Your task to perform on an android device: Is it going to rain this weekend? Image 0: 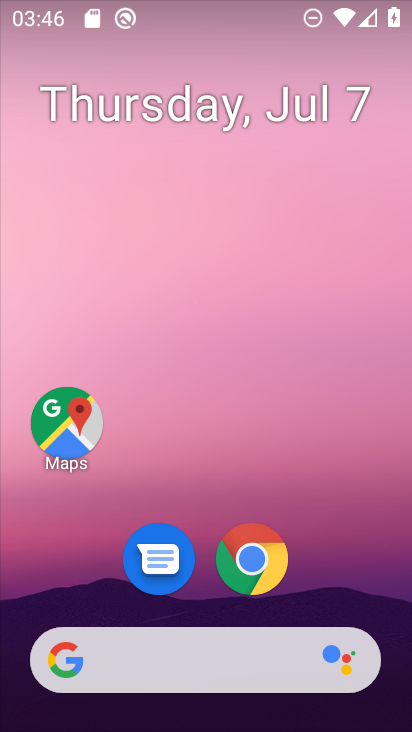
Step 0: click (210, 663)
Your task to perform on an android device: Is it going to rain this weekend? Image 1: 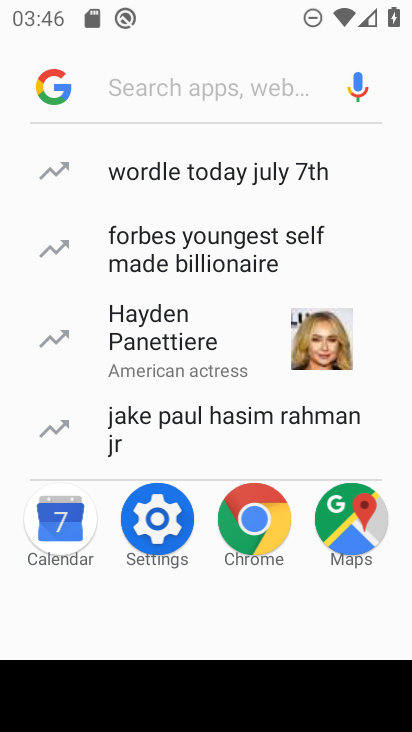
Step 1: type "weather"
Your task to perform on an android device: Is it going to rain this weekend? Image 2: 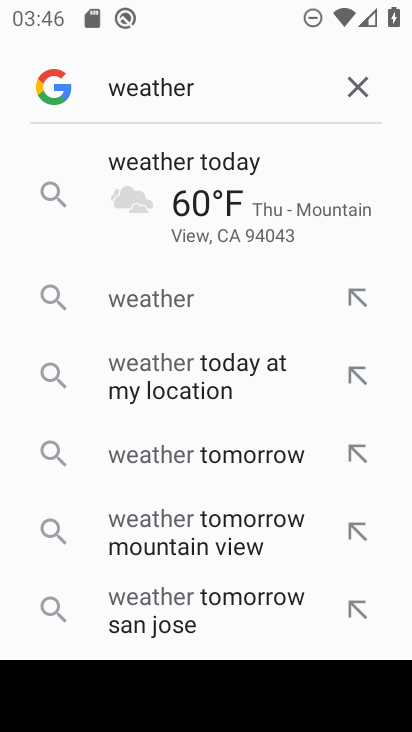
Step 2: click (216, 192)
Your task to perform on an android device: Is it going to rain this weekend? Image 3: 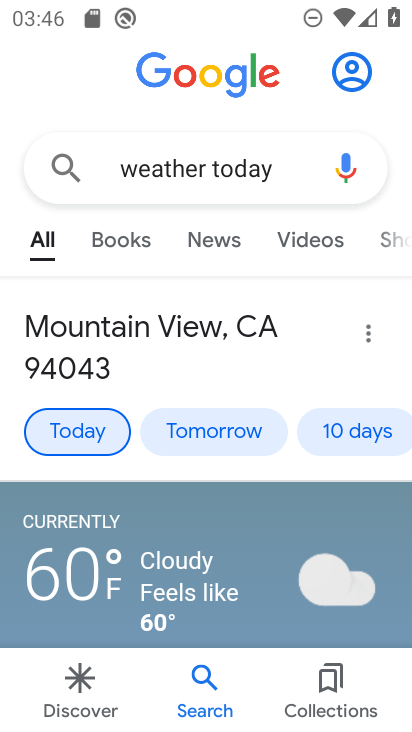
Step 3: click (344, 433)
Your task to perform on an android device: Is it going to rain this weekend? Image 4: 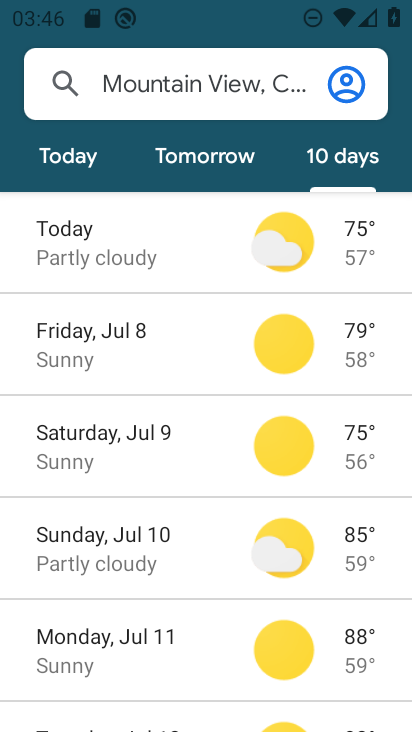
Step 4: click (190, 443)
Your task to perform on an android device: Is it going to rain this weekend? Image 5: 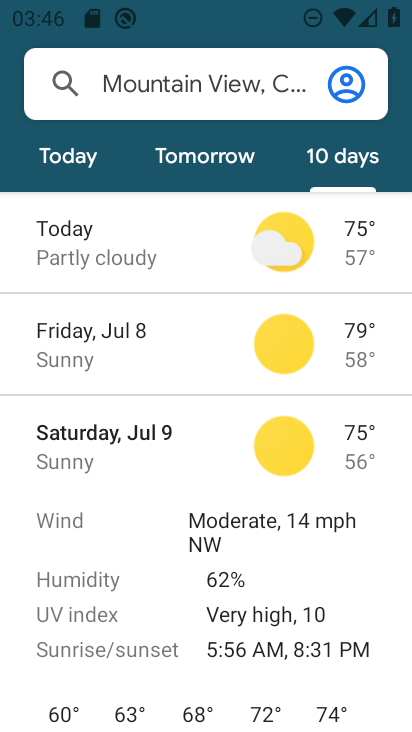
Step 5: task complete